Your task to perform on an android device: Is it going to rain today? Image 0: 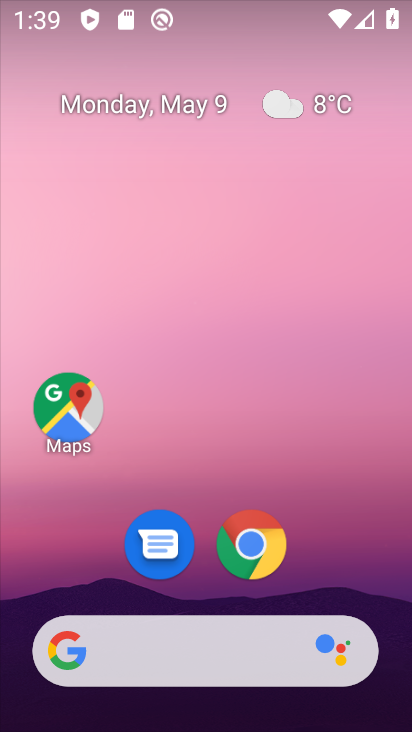
Step 0: click (305, 73)
Your task to perform on an android device: Is it going to rain today? Image 1: 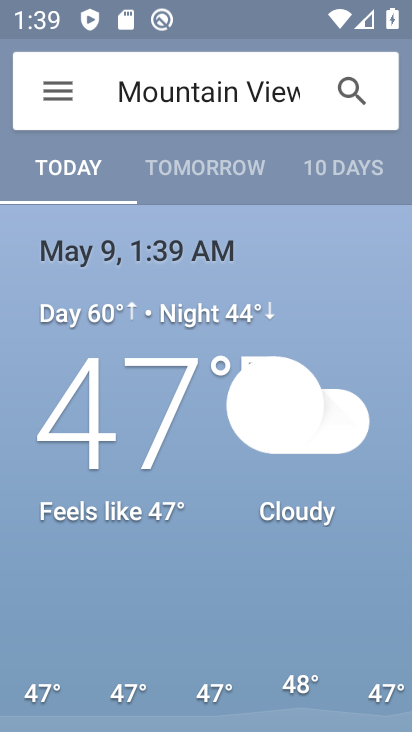
Step 1: task complete